Your task to perform on an android device: turn notification dots on Image 0: 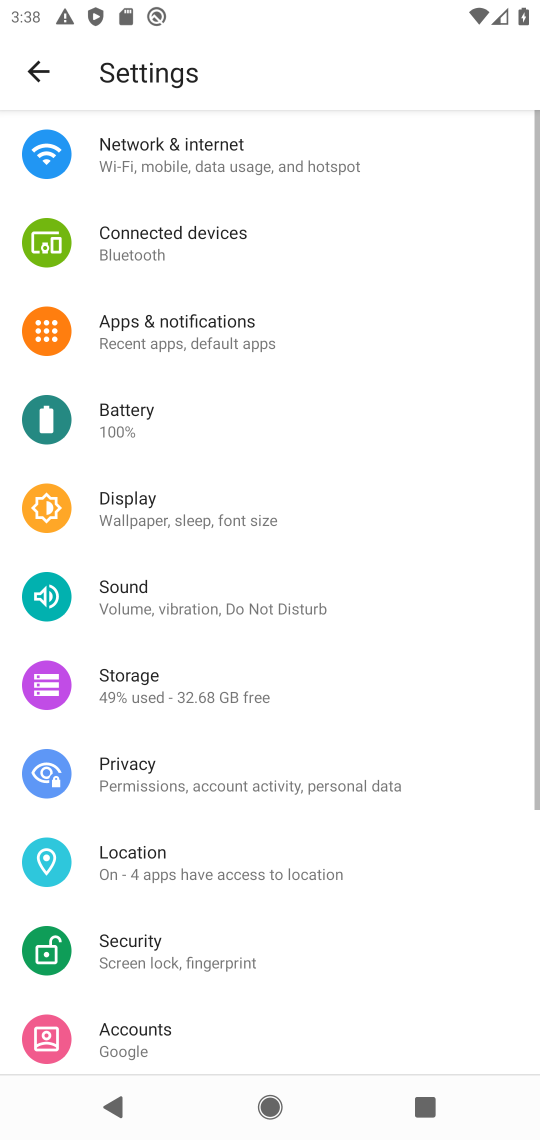
Step 0: click (222, 345)
Your task to perform on an android device: turn notification dots on Image 1: 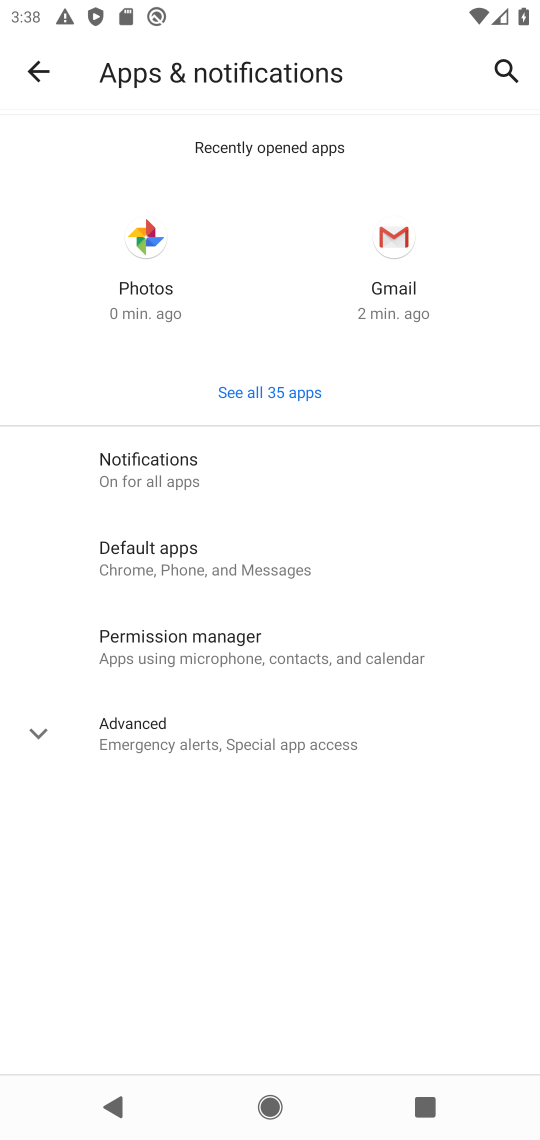
Step 1: click (174, 465)
Your task to perform on an android device: turn notification dots on Image 2: 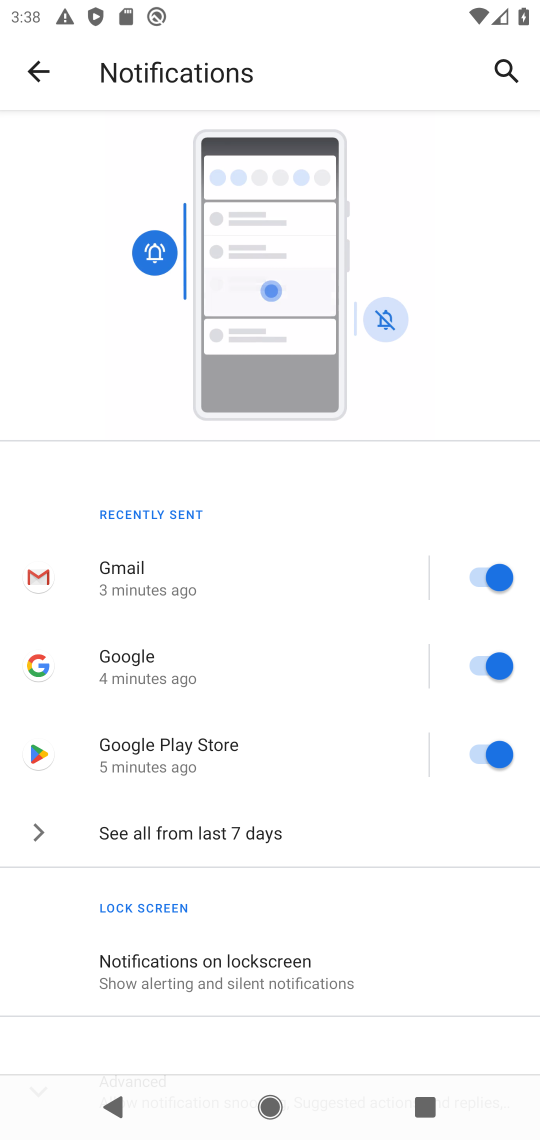
Step 2: drag from (254, 739) to (254, 551)
Your task to perform on an android device: turn notification dots on Image 3: 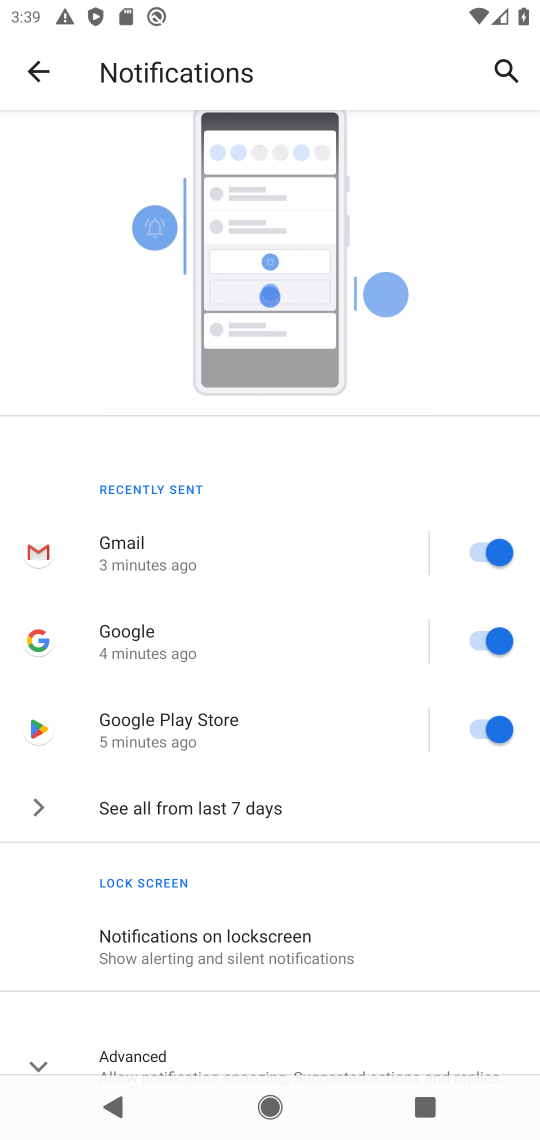
Step 3: click (218, 241)
Your task to perform on an android device: turn notification dots on Image 4: 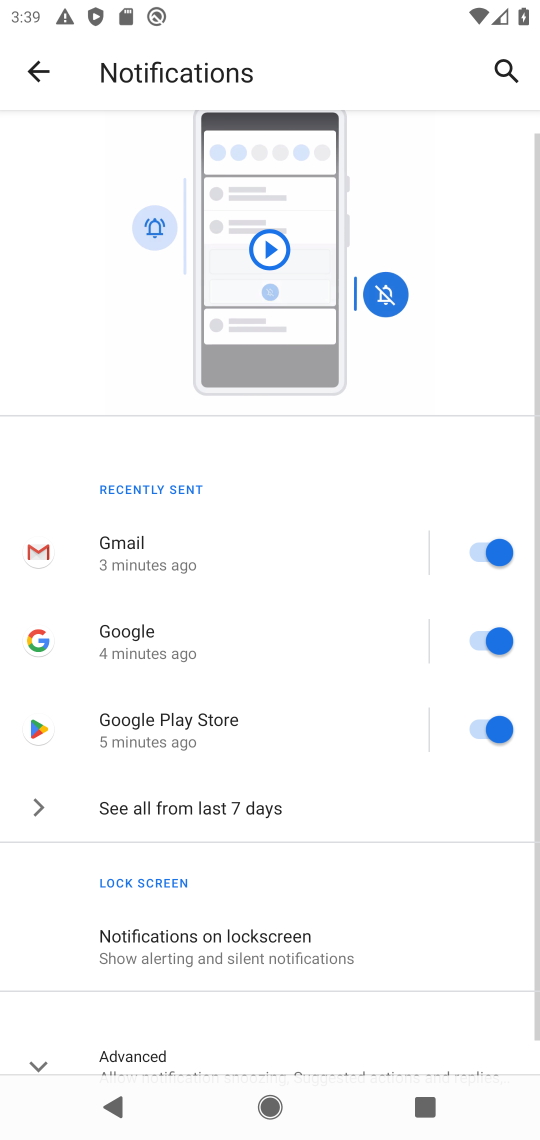
Step 4: drag from (218, 830) to (231, 245)
Your task to perform on an android device: turn notification dots on Image 5: 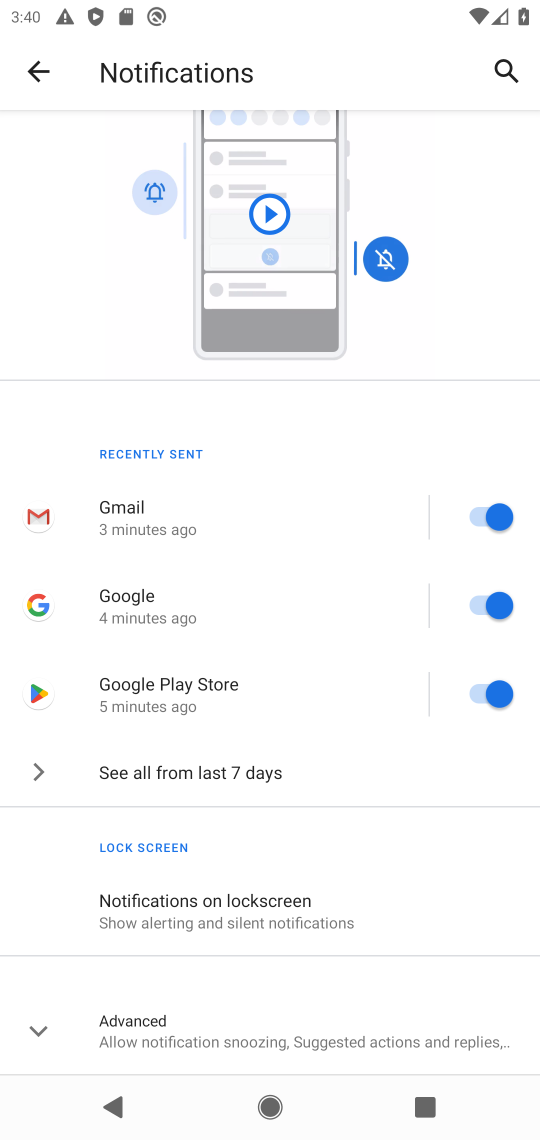
Step 5: click (166, 1031)
Your task to perform on an android device: turn notification dots on Image 6: 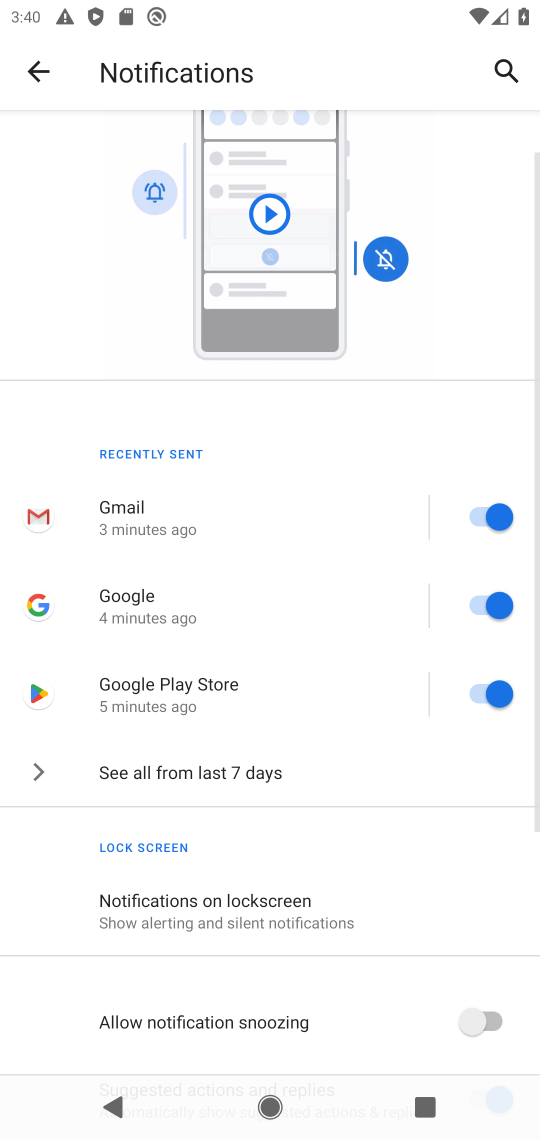
Step 6: drag from (260, 604) to (299, 123)
Your task to perform on an android device: turn notification dots on Image 7: 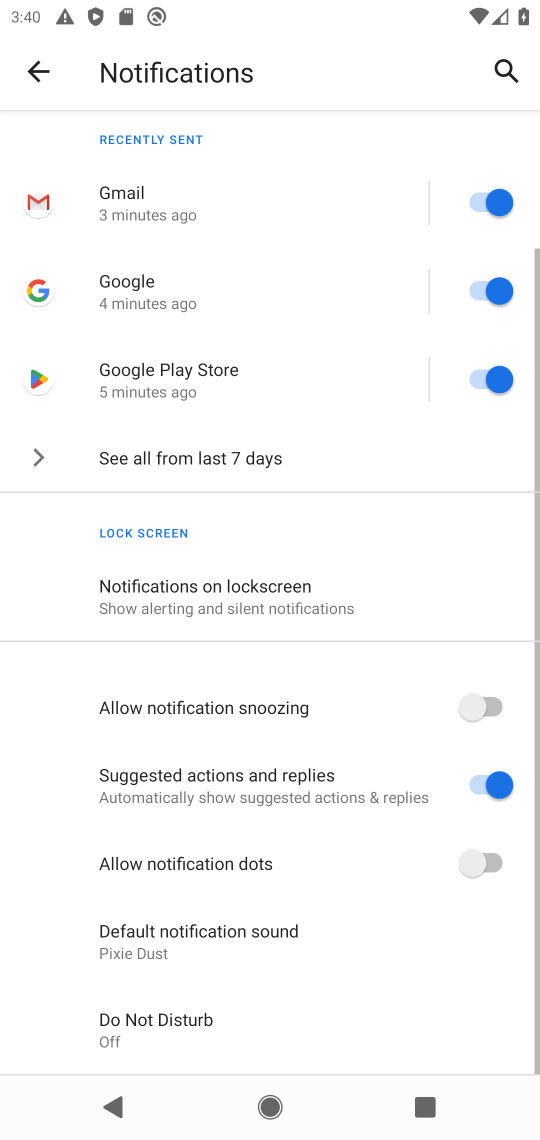
Step 7: drag from (248, 947) to (266, 552)
Your task to perform on an android device: turn notification dots on Image 8: 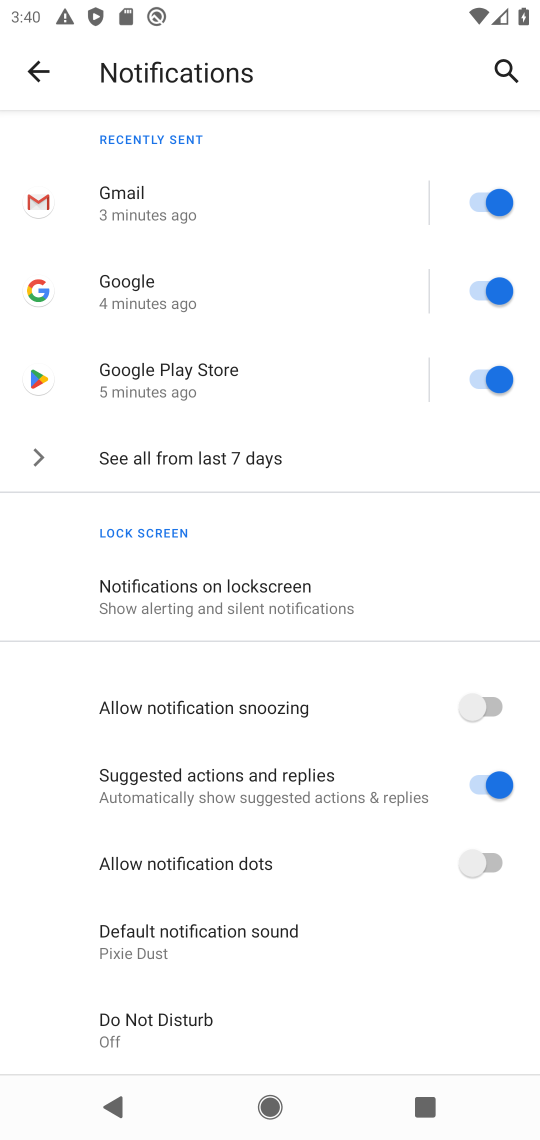
Step 8: click (465, 842)
Your task to perform on an android device: turn notification dots on Image 9: 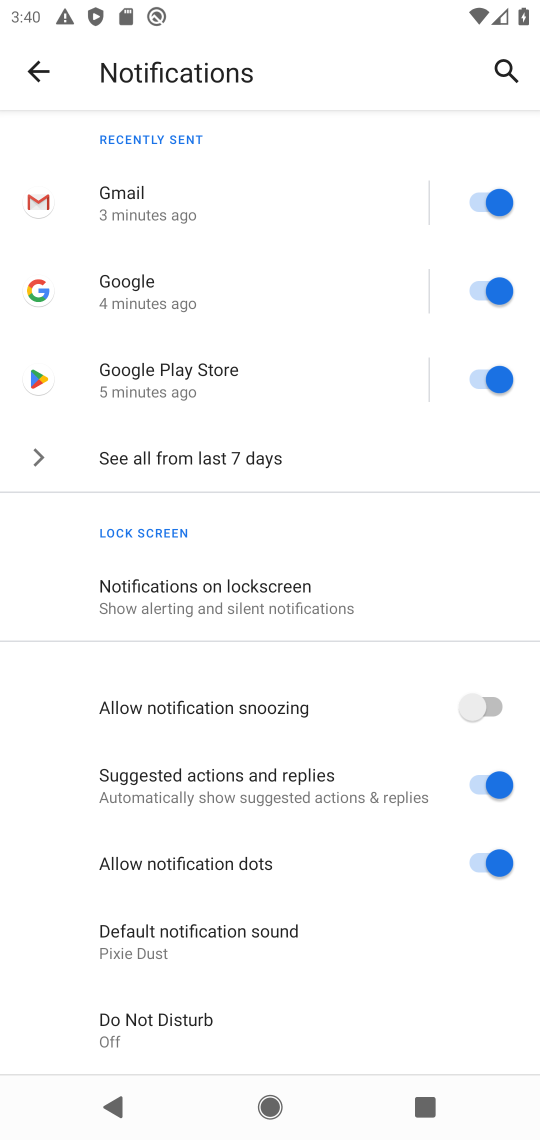
Step 9: task complete